Your task to perform on an android device: turn vacation reply on in the gmail app Image 0: 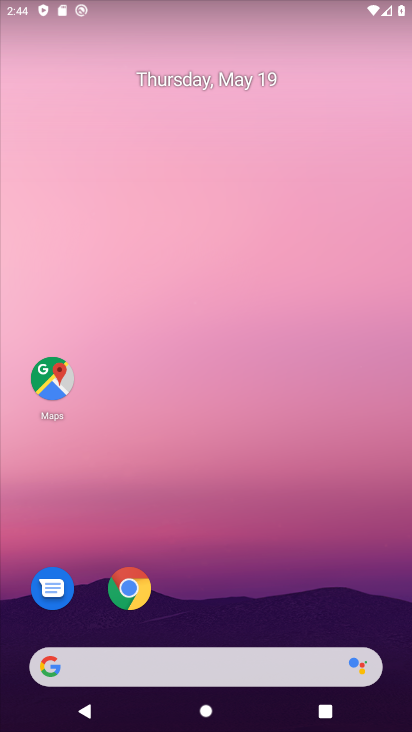
Step 0: drag from (350, 621) to (374, 253)
Your task to perform on an android device: turn vacation reply on in the gmail app Image 1: 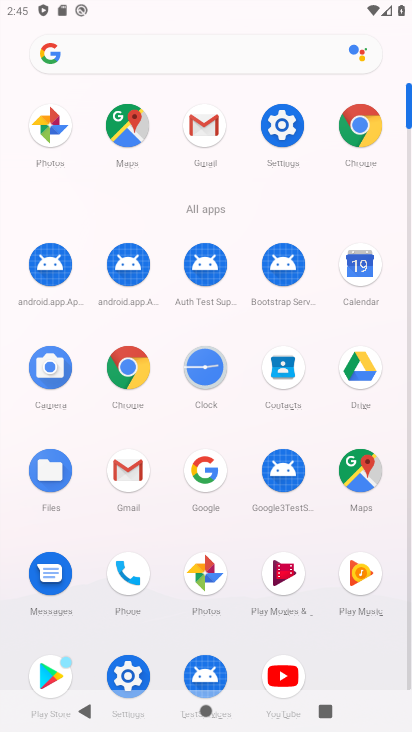
Step 1: click (134, 675)
Your task to perform on an android device: turn vacation reply on in the gmail app Image 2: 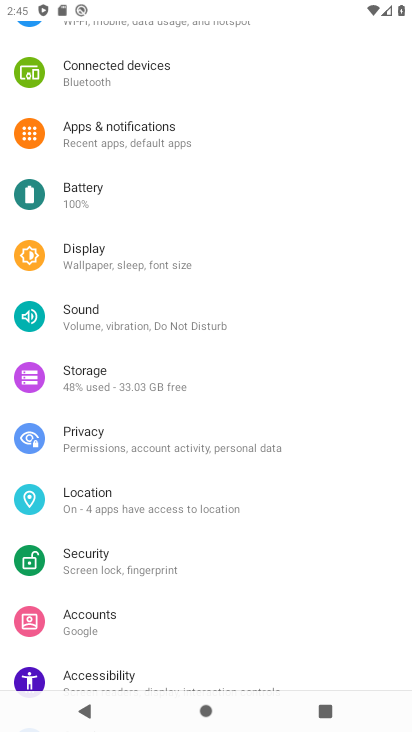
Step 2: press home button
Your task to perform on an android device: turn vacation reply on in the gmail app Image 3: 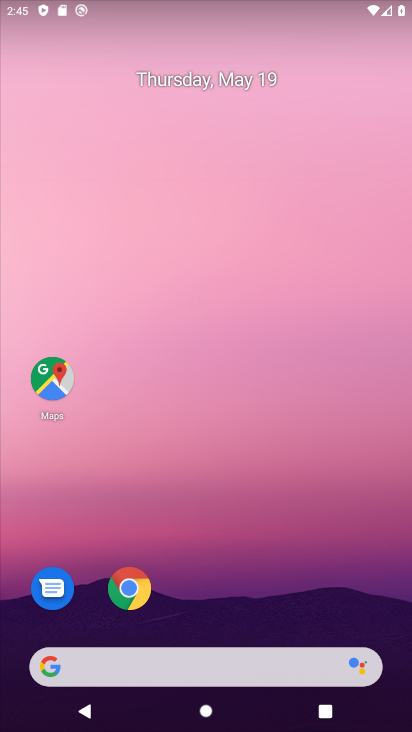
Step 3: drag from (347, 595) to (298, 130)
Your task to perform on an android device: turn vacation reply on in the gmail app Image 4: 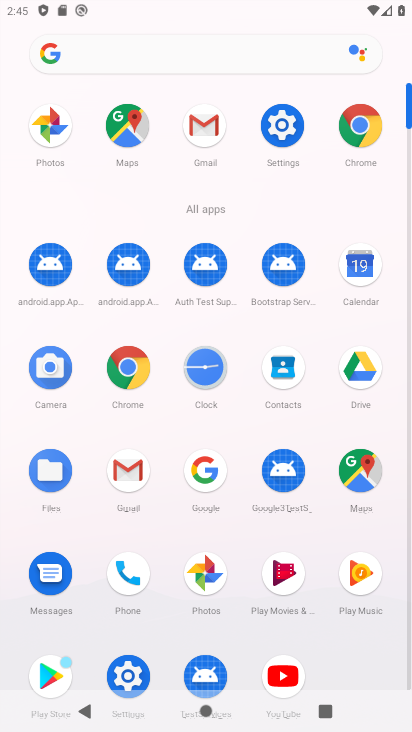
Step 4: click (120, 494)
Your task to perform on an android device: turn vacation reply on in the gmail app Image 5: 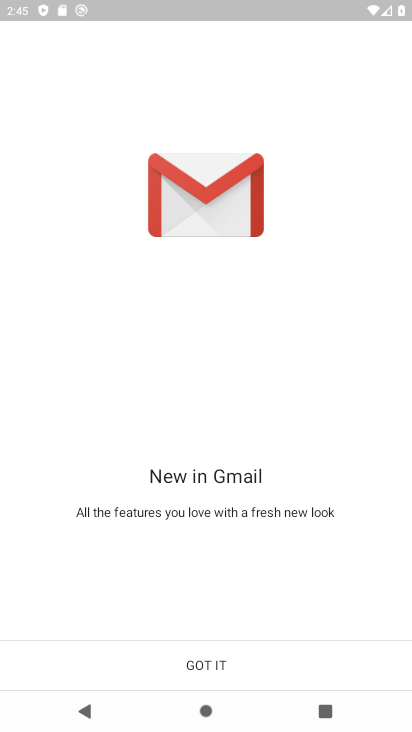
Step 5: click (206, 652)
Your task to perform on an android device: turn vacation reply on in the gmail app Image 6: 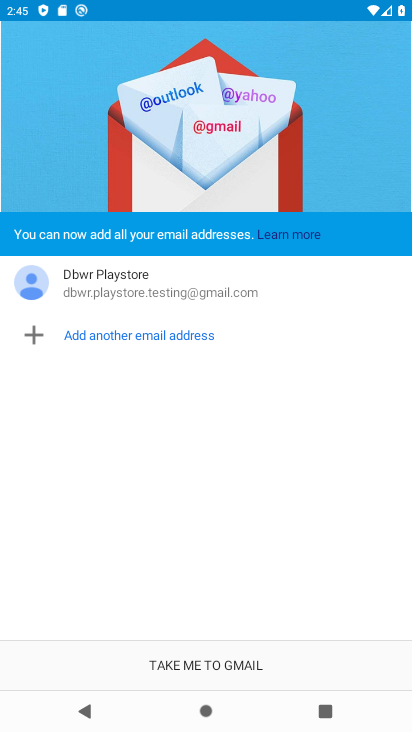
Step 6: click (213, 671)
Your task to perform on an android device: turn vacation reply on in the gmail app Image 7: 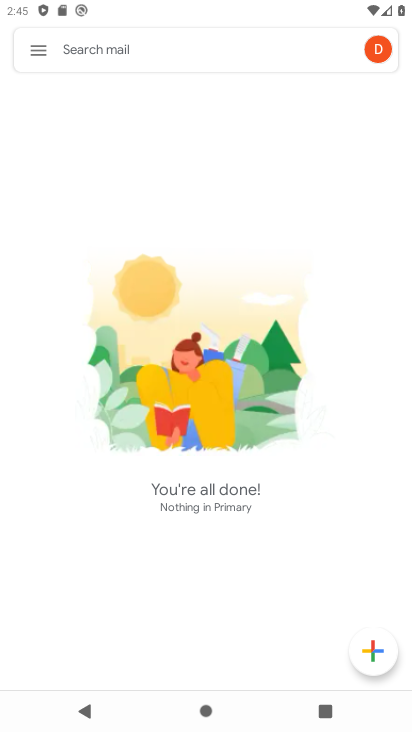
Step 7: click (50, 53)
Your task to perform on an android device: turn vacation reply on in the gmail app Image 8: 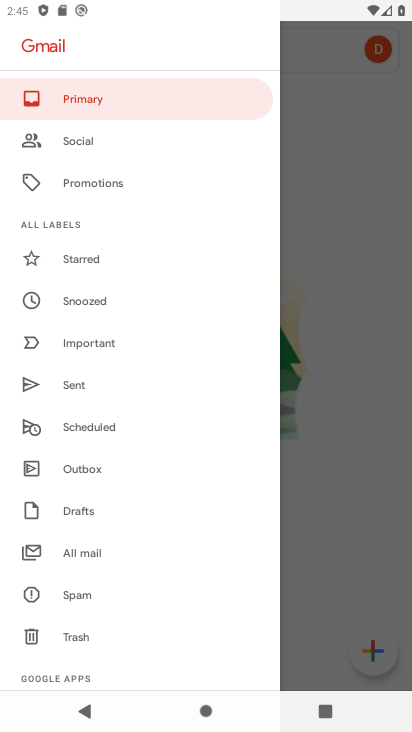
Step 8: drag from (99, 638) to (164, 259)
Your task to perform on an android device: turn vacation reply on in the gmail app Image 9: 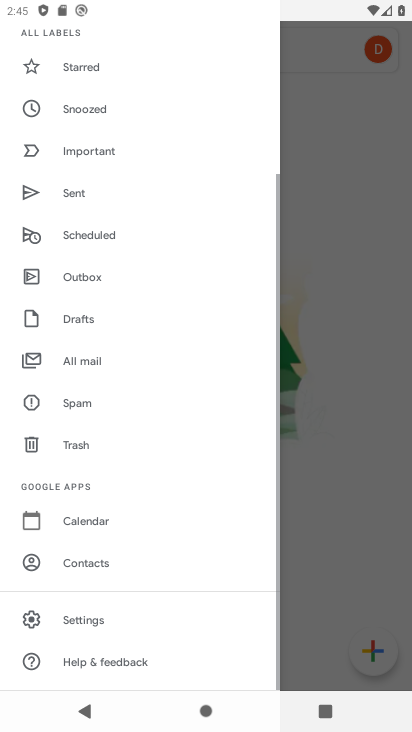
Step 9: click (107, 606)
Your task to perform on an android device: turn vacation reply on in the gmail app Image 10: 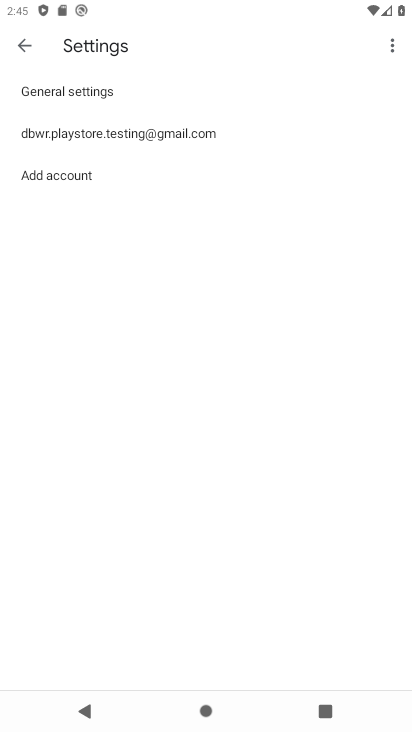
Step 10: click (128, 124)
Your task to perform on an android device: turn vacation reply on in the gmail app Image 11: 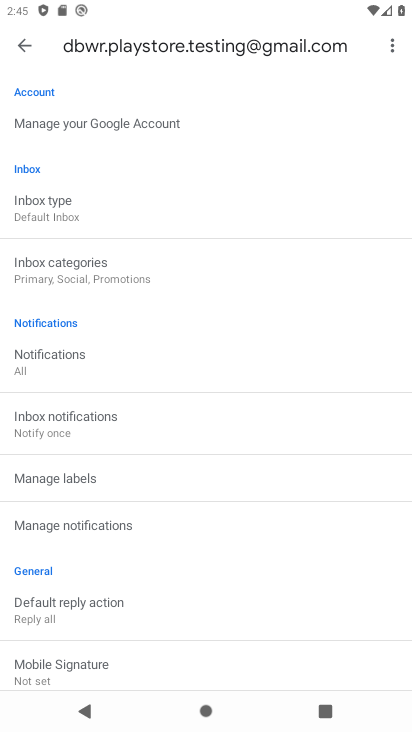
Step 11: drag from (229, 643) to (266, 336)
Your task to perform on an android device: turn vacation reply on in the gmail app Image 12: 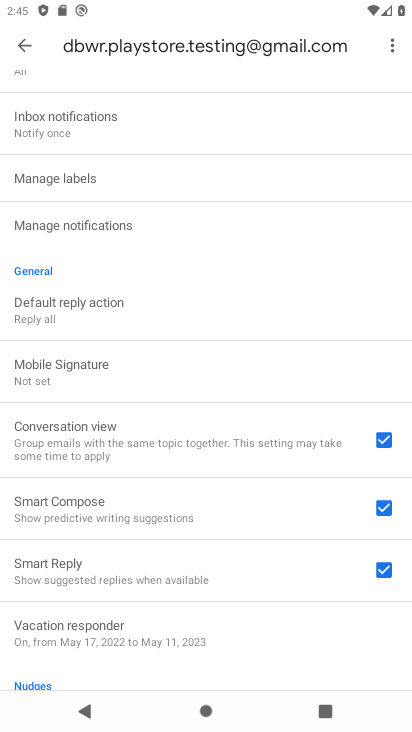
Step 12: drag from (250, 550) to (288, 311)
Your task to perform on an android device: turn vacation reply on in the gmail app Image 13: 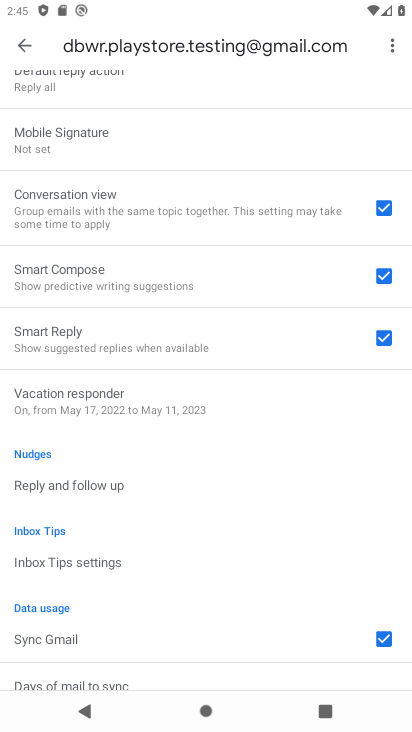
Step 13: click (180, 413)
Your task to perform on an android device: turn vacation reply on in the gmail app Image 14: 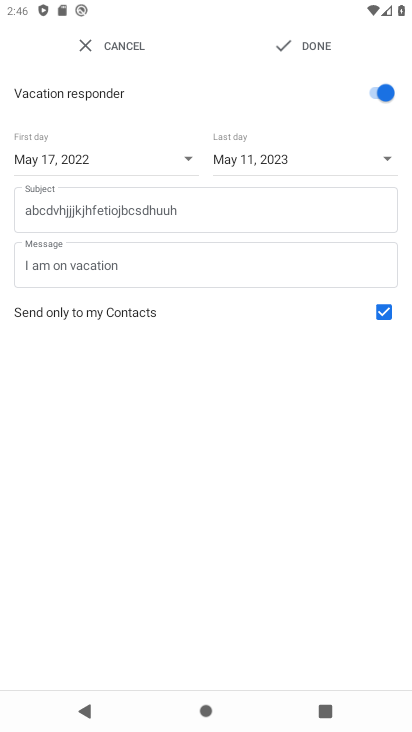
Step 14: task complete